Your task to perform on an android device: turn off location history Image 0: 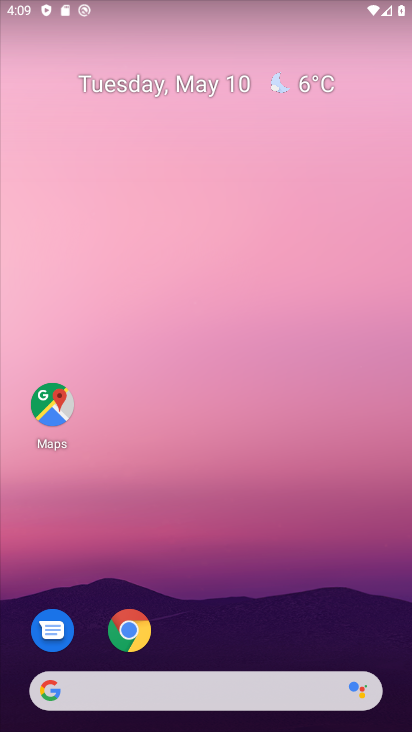
Step 0: drag from (261, 612) to (228, 231)
Your task to perform on an android device: turn off location history Image 1: 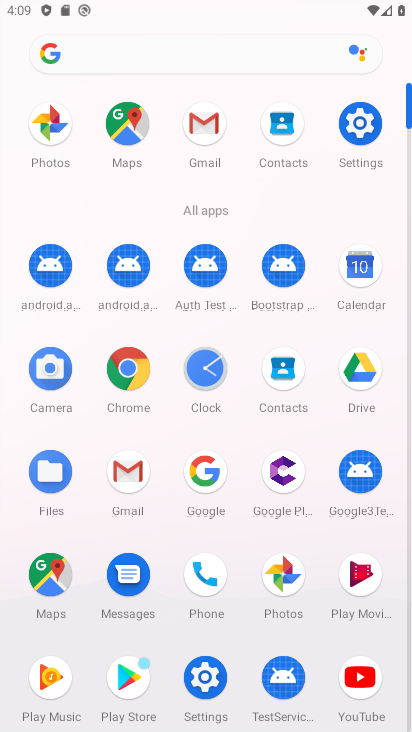
Step 1: click (219, 681)
Your task to perform on an android device: turn off location history Image 2: 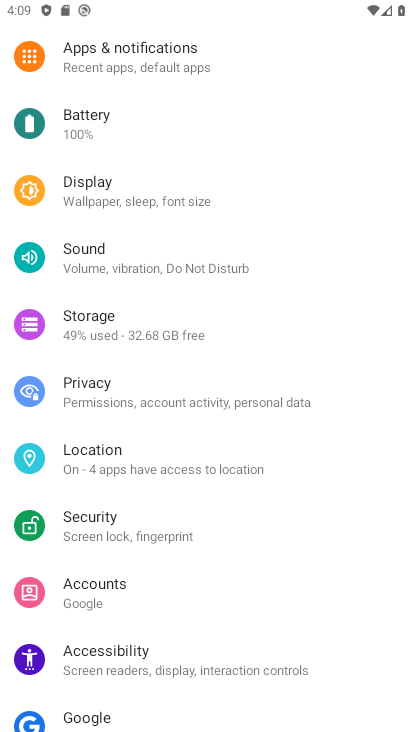
Step 2: drag from (223, 577) to (265, 696)
Your task to perform on an android device: turn off location history Image 3: 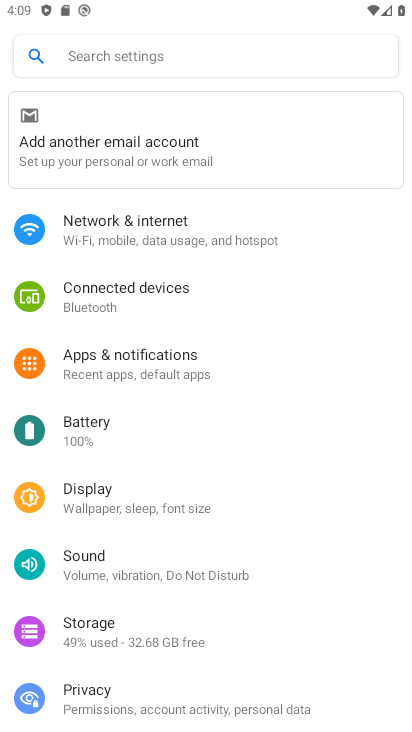
Step 3: drag from (254, 642) to (288, 325)
Your task to perform on an android device: turn off location history Image 4: 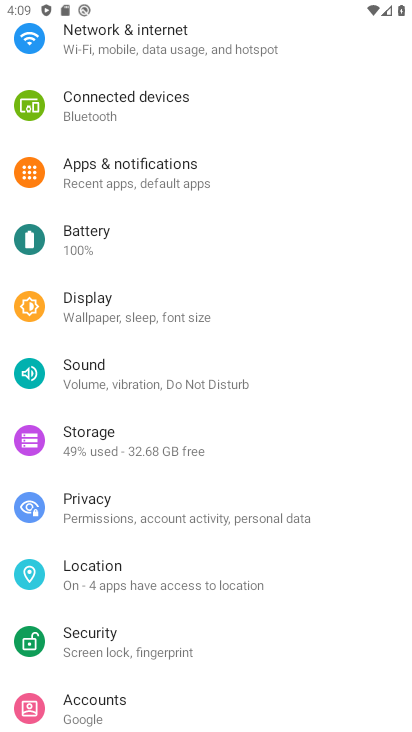
Step 4: click (134, 587)
Your task to perform on an android device: turn off location history Image 5: 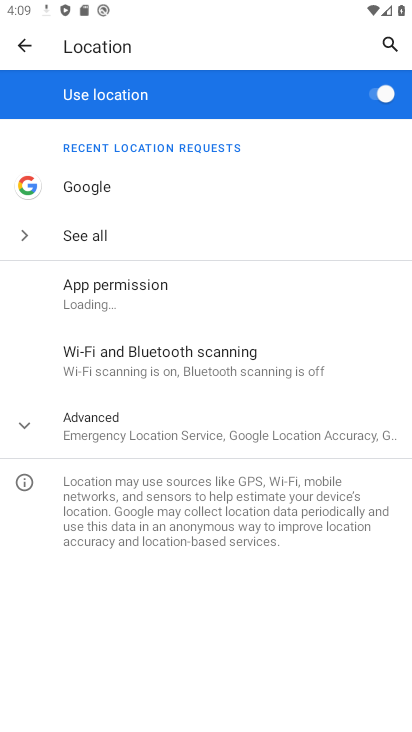
Step 5: click (161, 441)
Your task to perform on an android device: turn off location history Image 6: 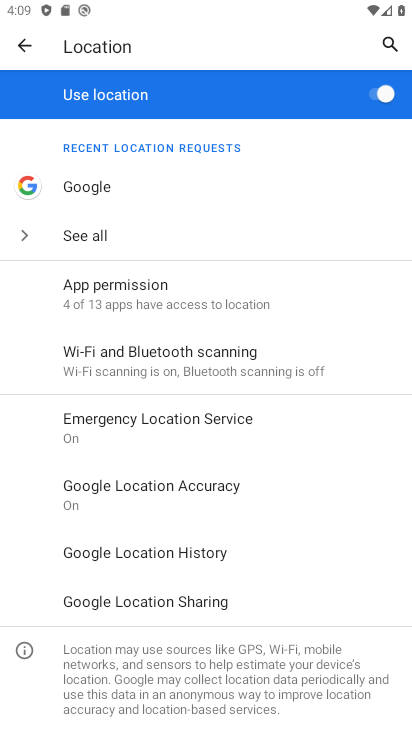
Step 6: click (193, 548)
Your task to perform on an android device: turn off location history Image 7: 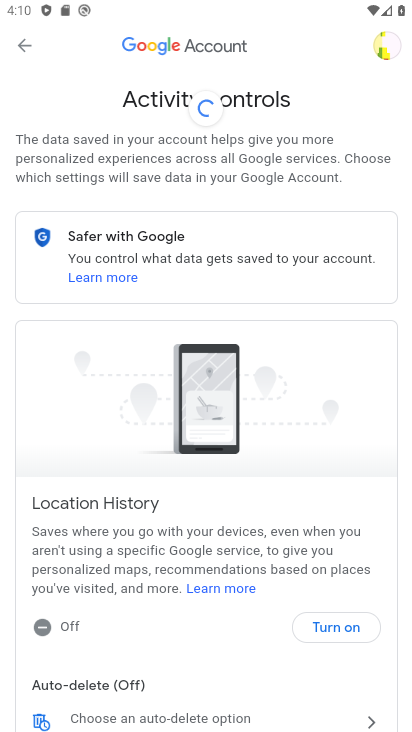
Step 7: task complete